Your task to perform on an android device: change keyboard looks Image 0: 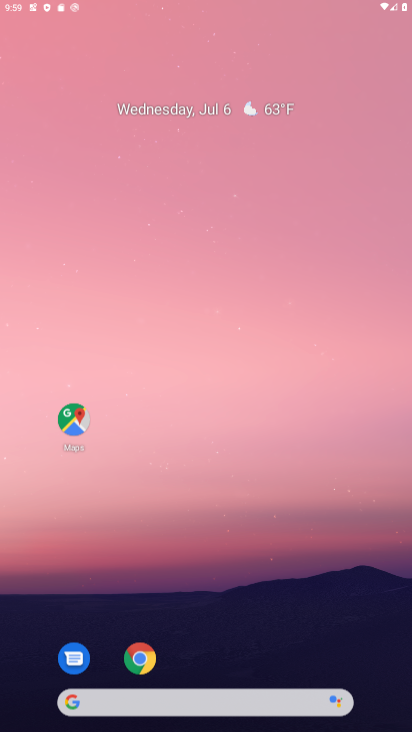
Step 0: click (271, 330)
Your task to perform on an android device: change keyboard looks Image 1: 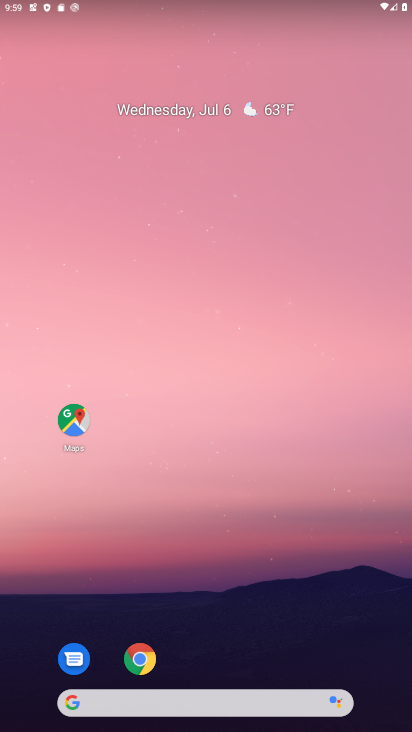
Step 1: drag from (211, 625) to (336, 243)
Your task to perform on an android device: change keyboard looks Image 2: 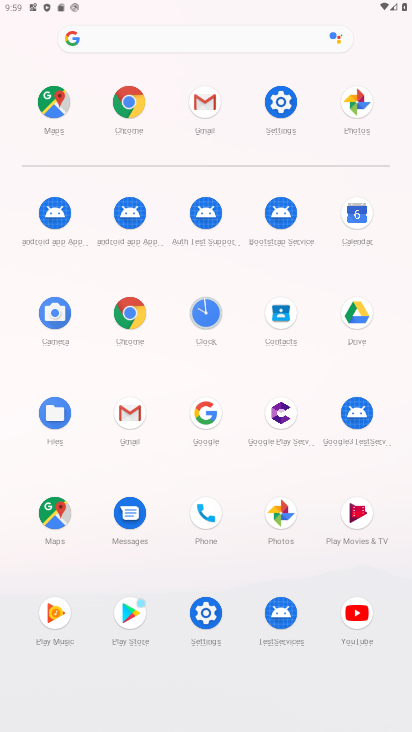
Step 2: click (193, 593)
Your task to perform on an android device: change keyboard looks Image 3: 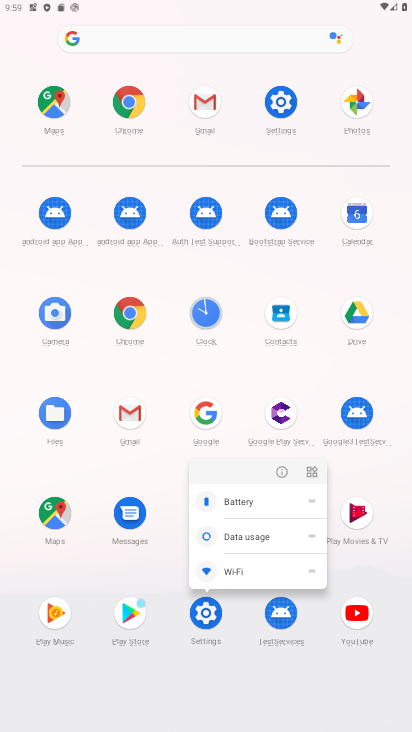
Step 3: click (285, 467)
Your task to perform on an android device: change keyboard looks Image 4: 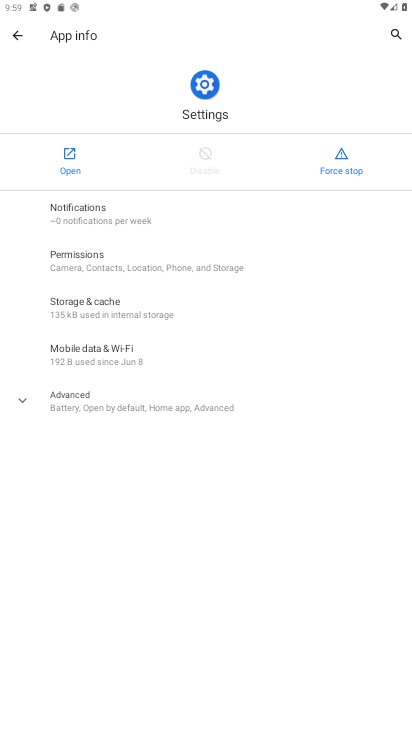
Step 4: click (65, 157)
Your task to perform on an android device: change keyboard looks Image 5: 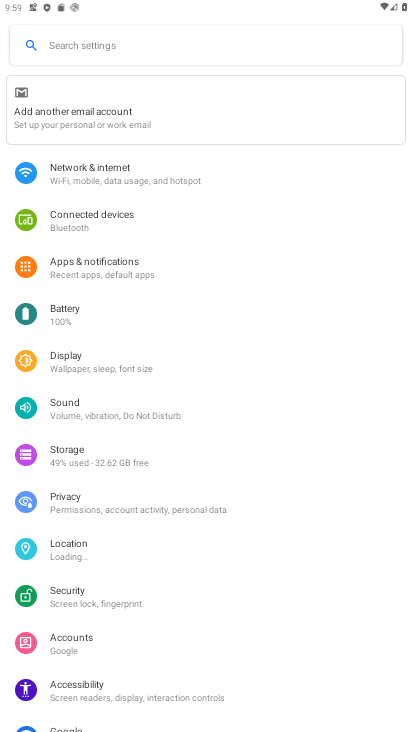
Step 5: drag from (137, 640) to (271, 5)
Your task to perform on an android device: change keyboard looks Image 6: 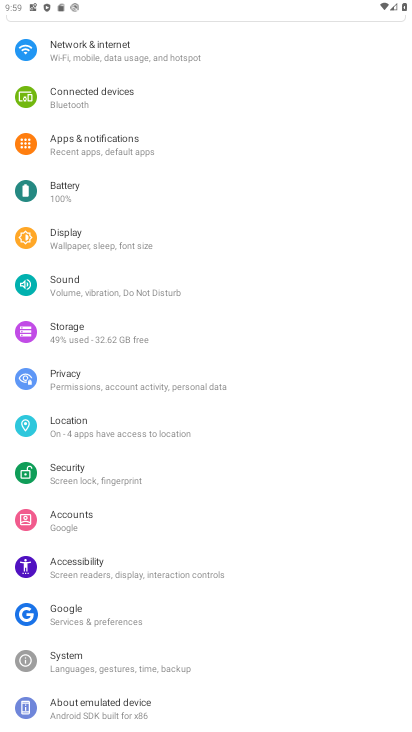
Step 6: click (89, 667)
Your task to perform on an android device: change keyboard looks Image 7: 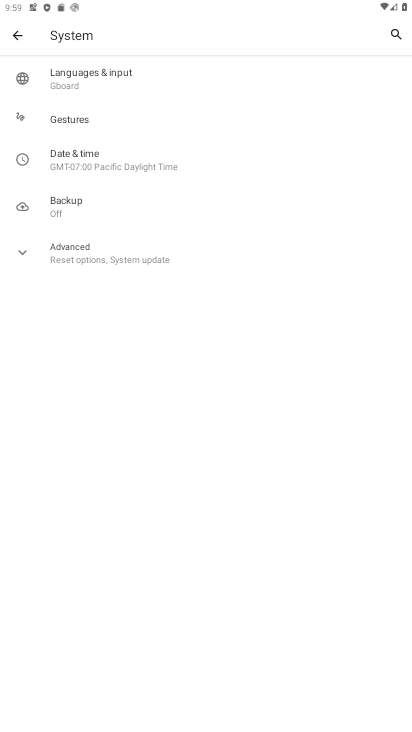
Step 7: click (96, 87)
Your task to perform on an android device: change keyboard looks Image 8: 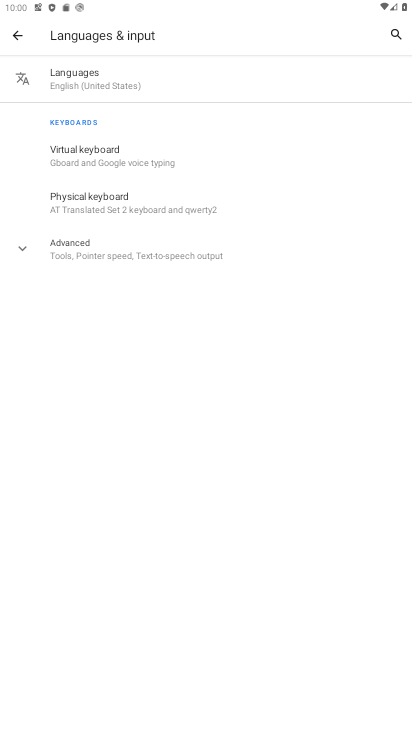
Step 8: click (124, 147)
Your task to perform on an android device: change keyboard looks Image 9: 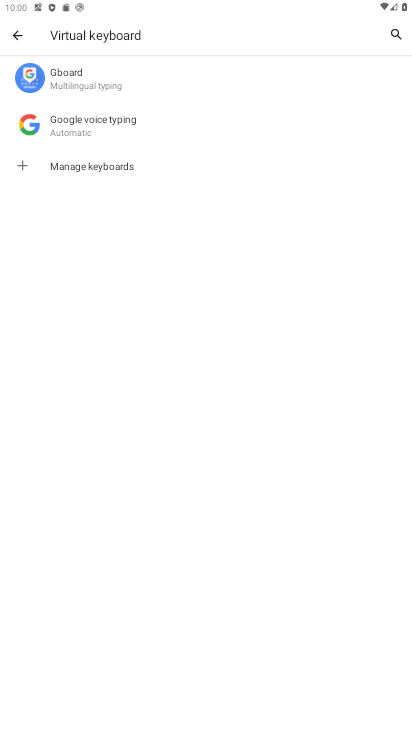
Step 9: click (154, 81)
Your task to perform on an android device: change keyboard looks Image 10: 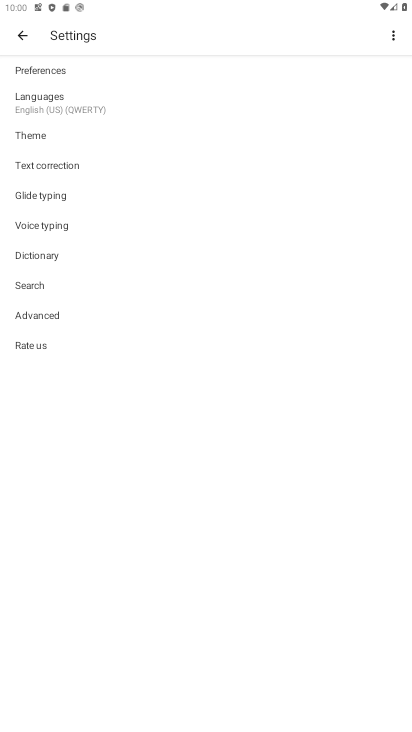
Step 10: click (53, 132)
Your task to perform on an android device: change keyboard looks Image 11: 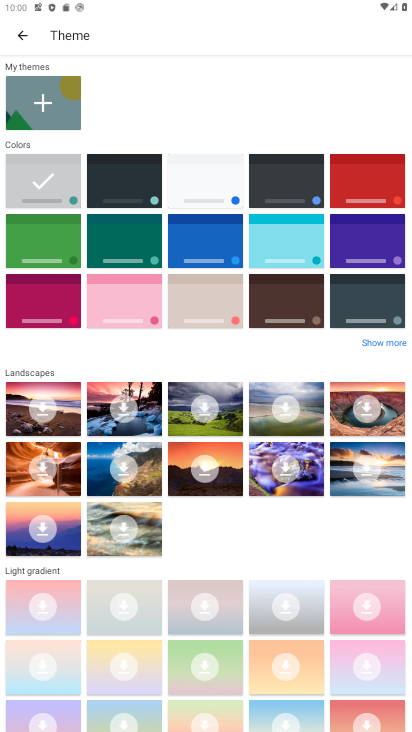
Step 11: click (130, 180)
Your task to perform on an android device: change keyboard looks Image 12: 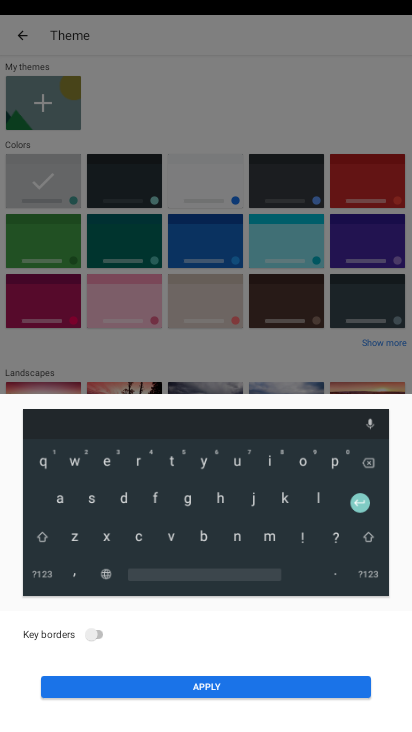
Step 12: click (196, 686)
Your task to perform on an android device: change keyboard looks Image 13: 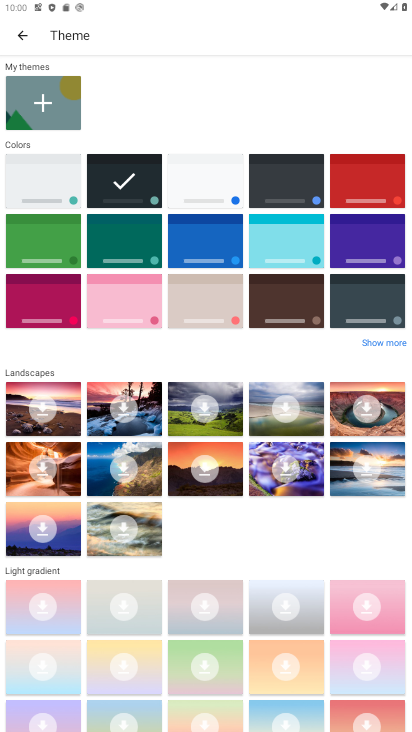
Step 13: task complete